Your task to perform on an android device: check google app version Image 0: 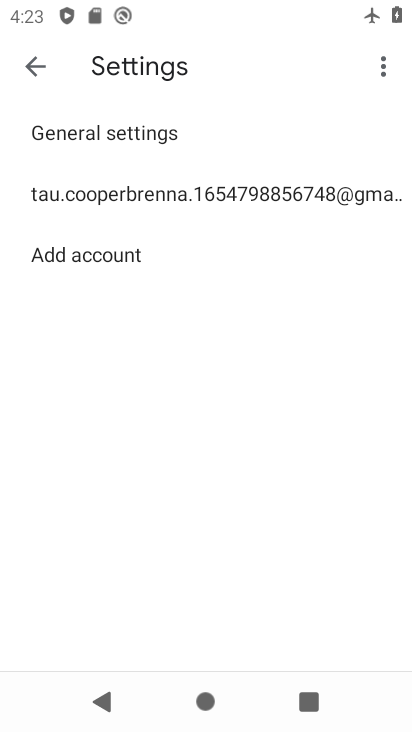
Step 0: press home button
Your task to perform on an android device: check google app version Image 1: 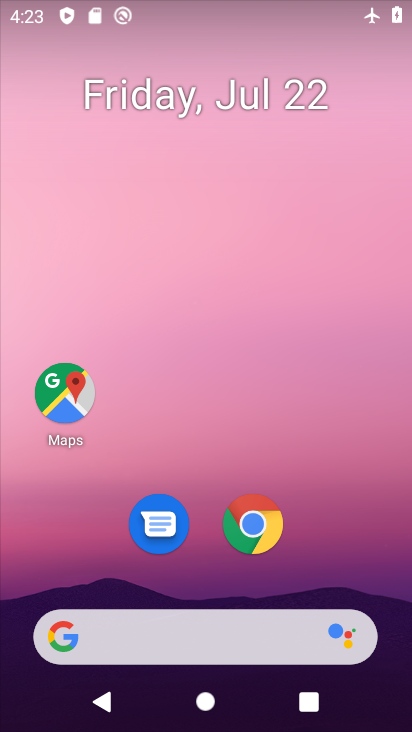
Step 1: drag from (325, 569) to (332, 118)
Your task to perform on an android device: check google app version Image 2: 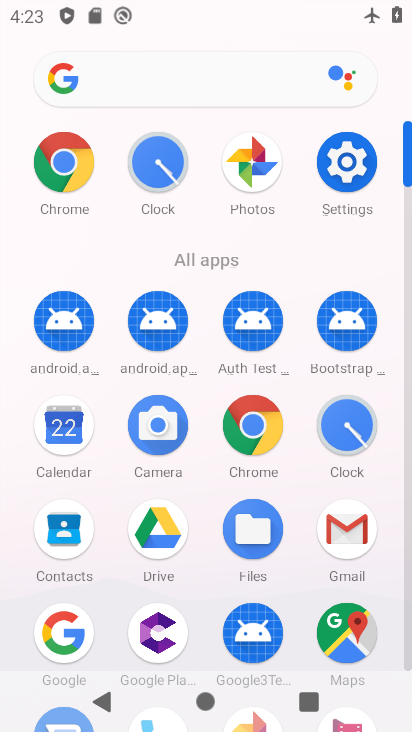
Step 2: click (58, 619)
Your task to perform on an android device: check google app version Image 3: 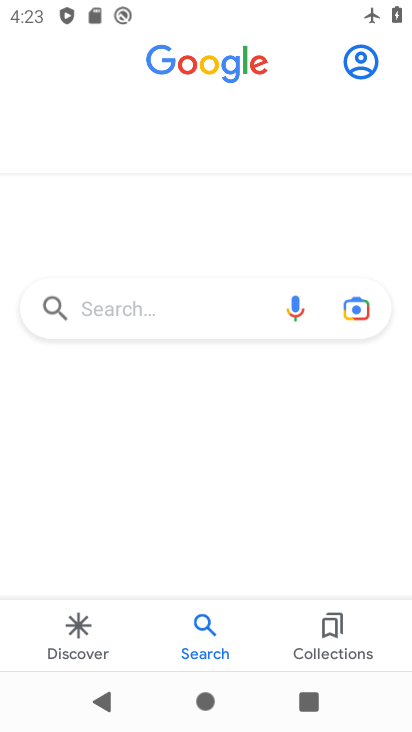
Step 3: click (226, 61)
Your task to perform on an android device: check google app version Image 4: 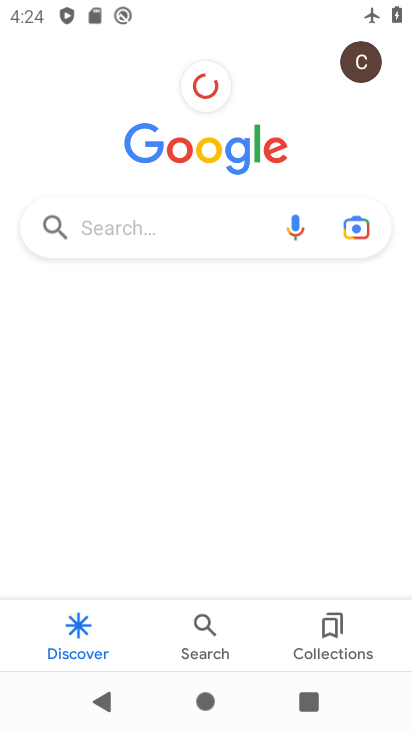
Step 4: click (356, 60)
Your task to perform on an android device: check google app version Image 5: 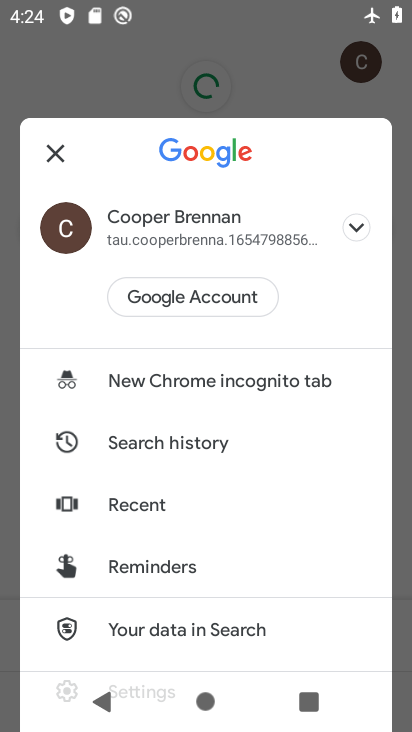
Step 5: click (356, 58)
Your task to perform on an android device: check google app version Image 6: 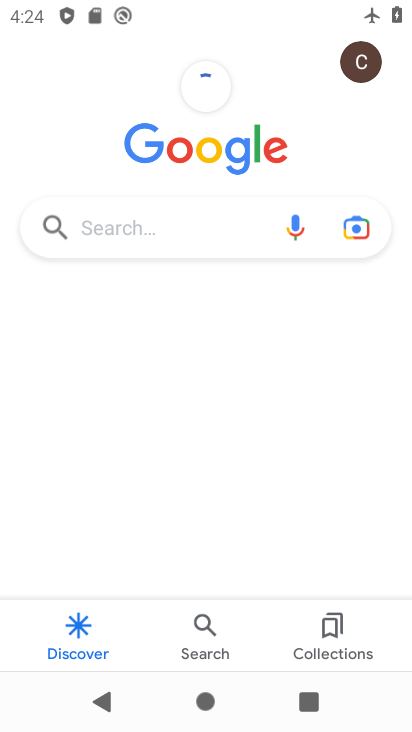
Step 6: click (356, 57)
Your task to perform on an android device: check google app version Image 7: 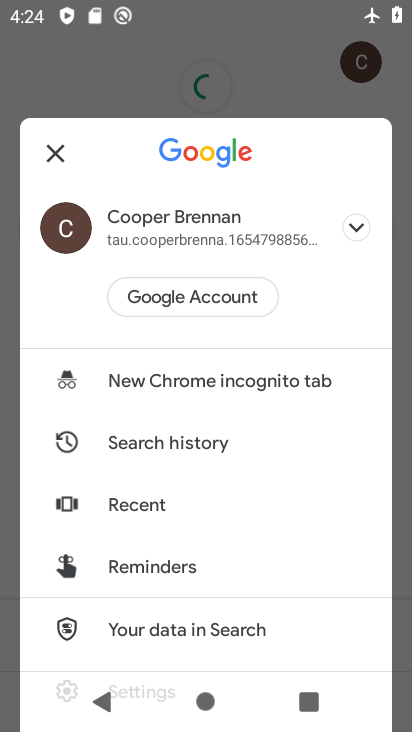
Step 7: drag from (213, 568) to (257, 189)
Your task to perform on an android device: check google app version Image 8: 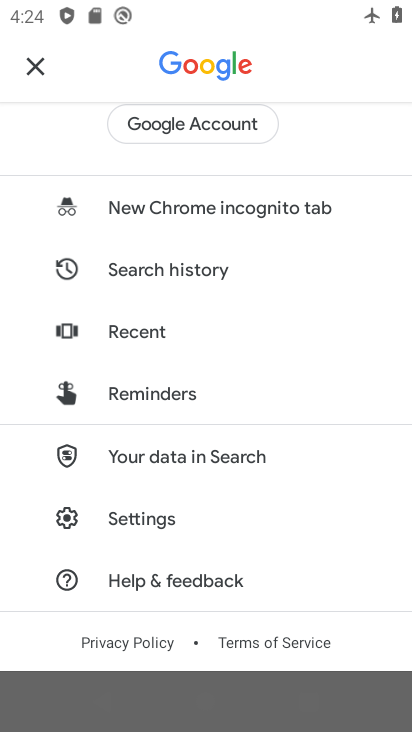
Step 8: click (167, 510)
Your task to perform on an android device: check google app version Image 9: 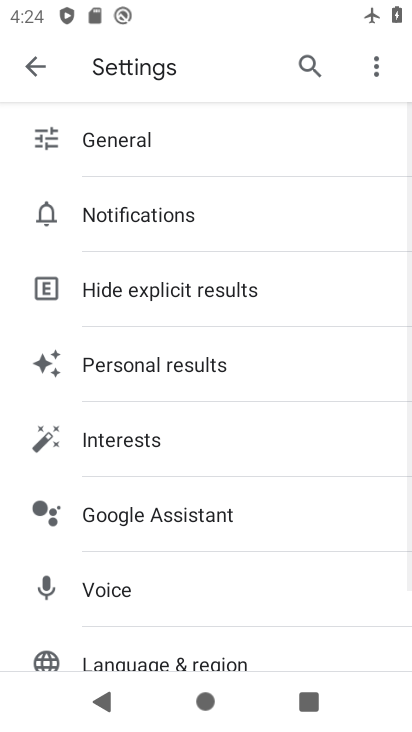
Step 9: drag from (239, 550) to (244, 350)
Your task to perform on an android device: check google app version Image 10: 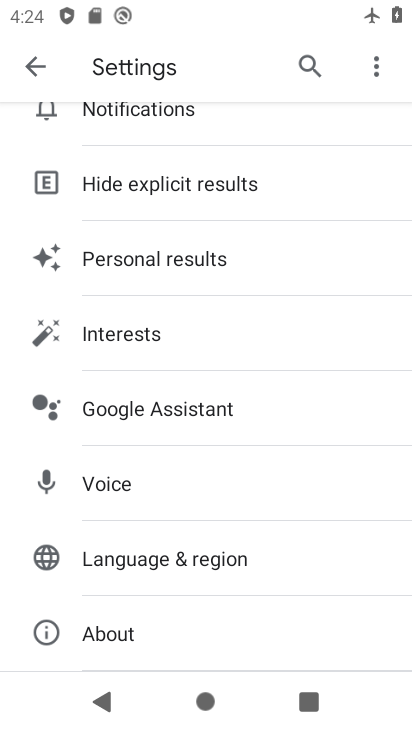
Step 10: click (101, 628)
Your task to perform on an android device: check google app version Image 11: 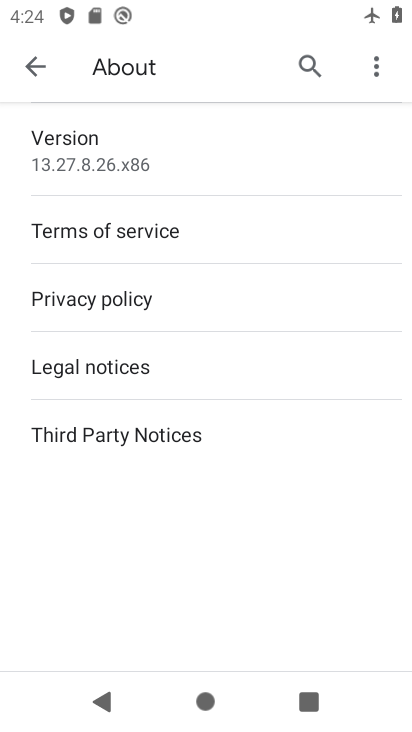
Step 11: task complete